Your task to perform on an android device: open app "Microsoft Outlook" (install if not already installed) and enter user name: "brand@gmail.com" and password: "persuasiveness" Image 0: 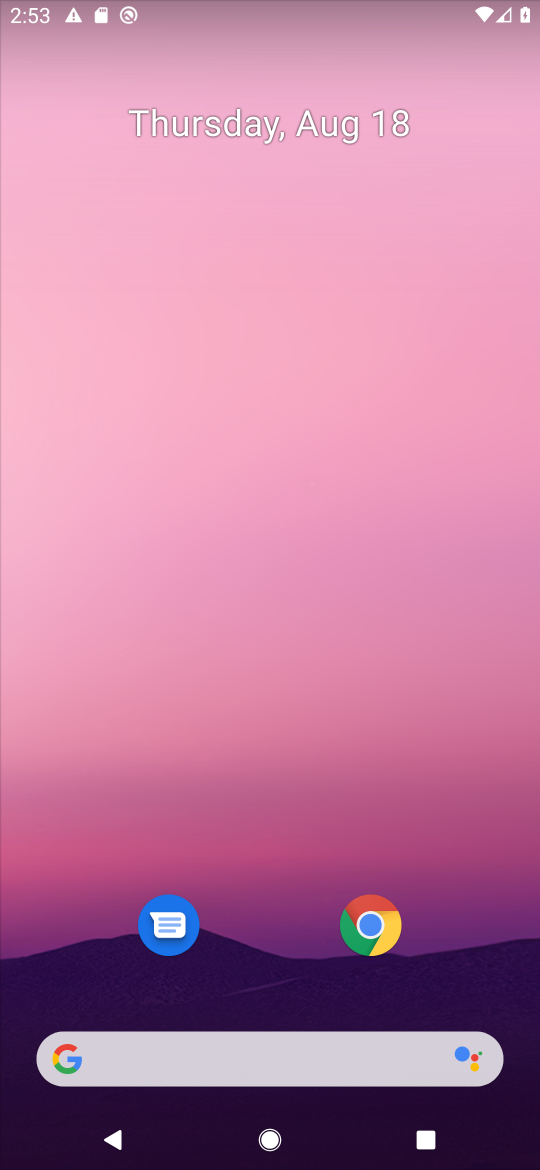
Step 0: drag from (267, 855) to (300, 304)
Your task to perform on an android device: open app "Microsoft Outlook" (install if not already installed) and enter user name: "brand@gmail.com" and password: "persuasiveness" Image 1: 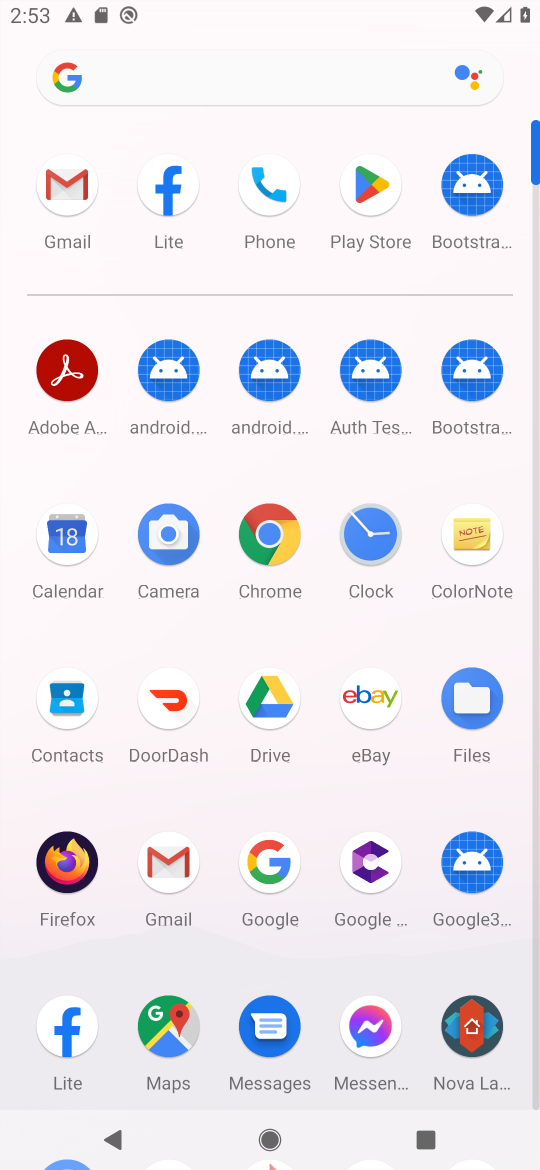
Step 1: click (376, 193)
Your task to perform on an android device: open app "Microsoft Outlook" (install if not already installed) and enter user name: "brand@gmail.com" and password: "persuasiveness" Image 2: 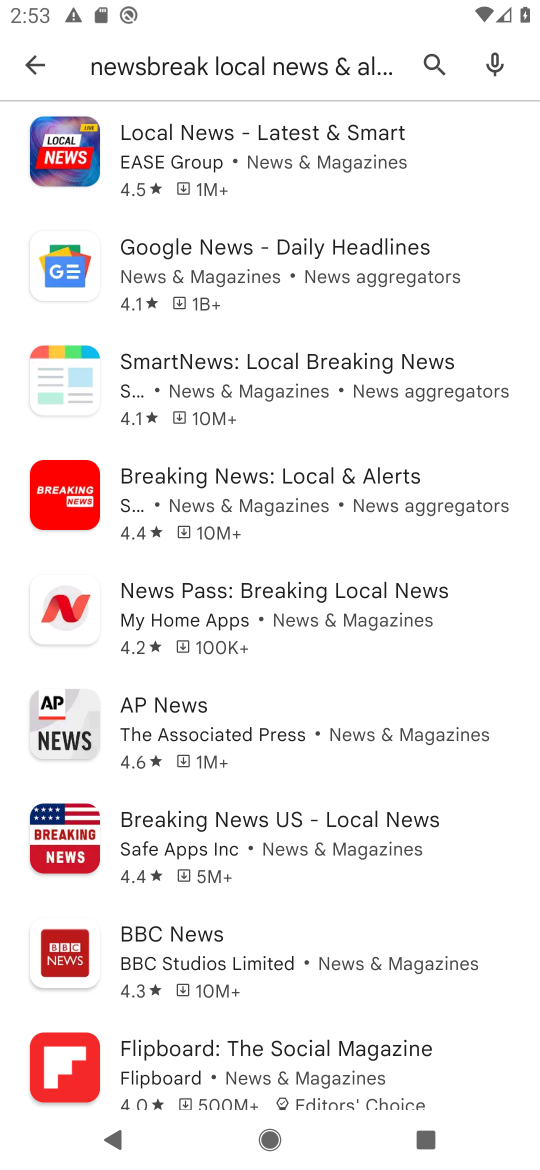
Step 2: click (30, 70)
Your task to perform on an android device: open app "Microsoft Outlook" (install if not already installed) and enter user name: "brand@gmail.com" and password: "persuasiveness" Image 3: 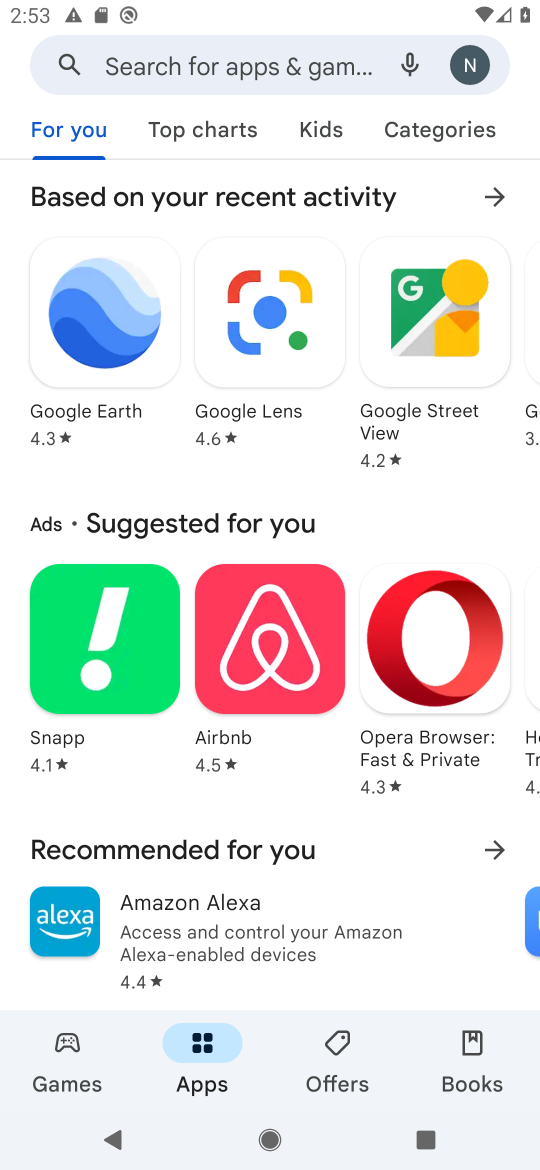
Step 3: click (188, 74)
Your task to perform on an android device: open app "Microsoft Outlook" (install if not already installed) and enter user name: "brand@gmail.com" and password: "persuasiveness" Image 4: 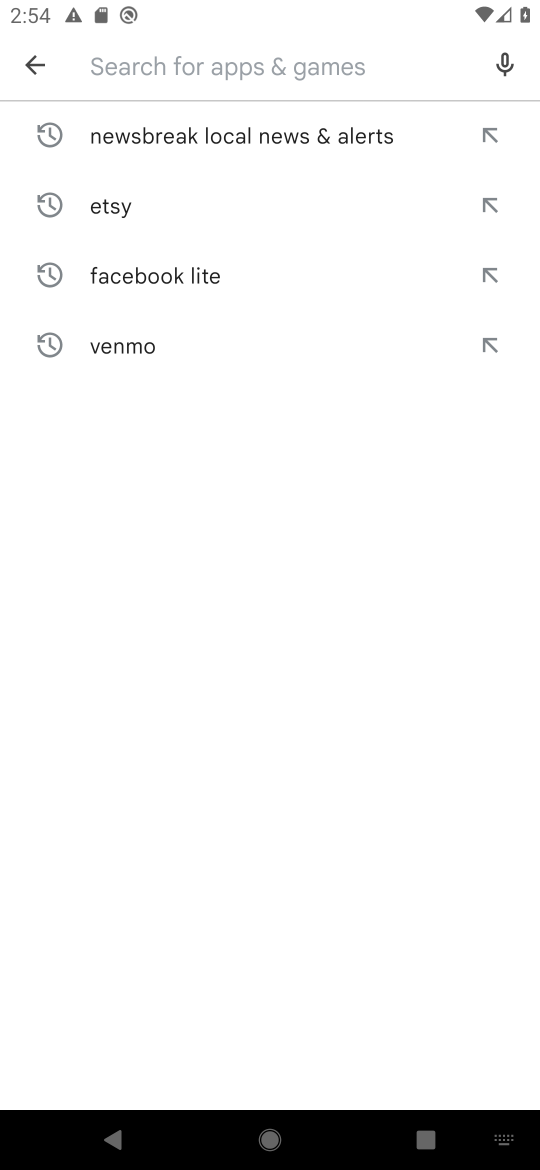
Step 4: type "Microsoft Outlook"
Your task to perform on an android device: open app "Microsoft Outlook" (install if not already installed) and enter user name: "brand@gmail.com" and password: "persuasiveness" Image 5: 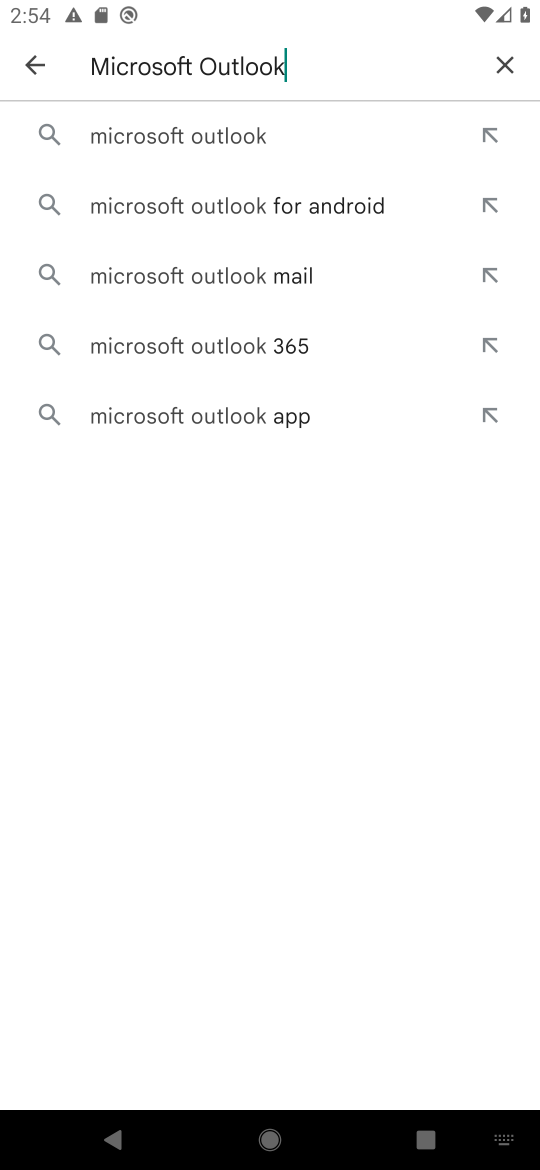
Step 5: click (207, 136)
Your task to perform on an android device: open app "Microsoft Outlook" (install if not already installed) and enter user name: "brand@gmail.com" and password: "persuasiveness" Image 6: 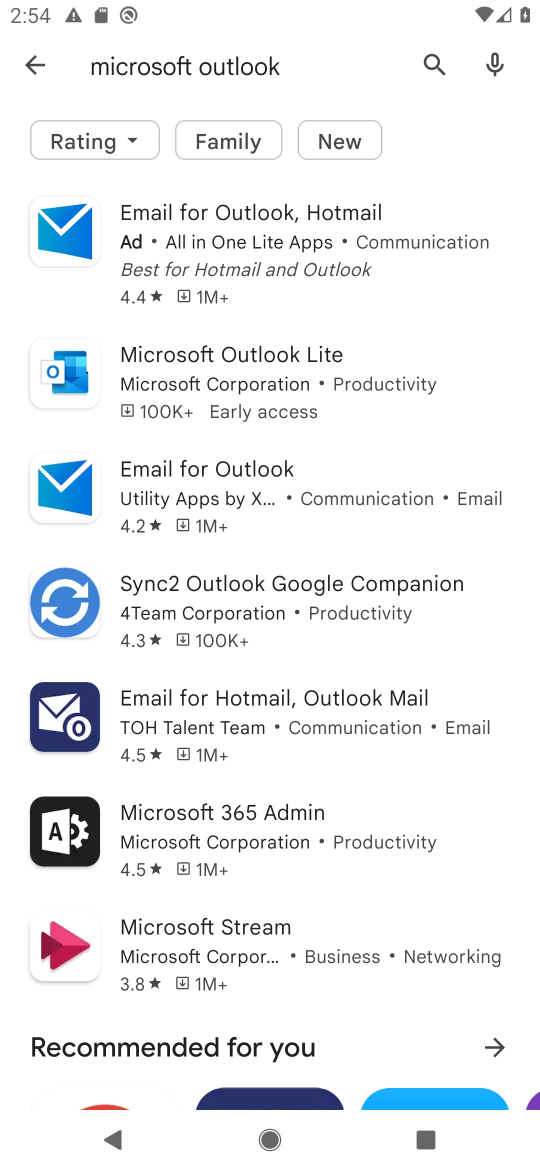
Step 6: click (187, 392)
Your task to perform on an android device: open app "Microsoft Outlook" (install if not already installed) and enter user name: "brand@gmail.com" and password: "persuasiveness" Image 7: 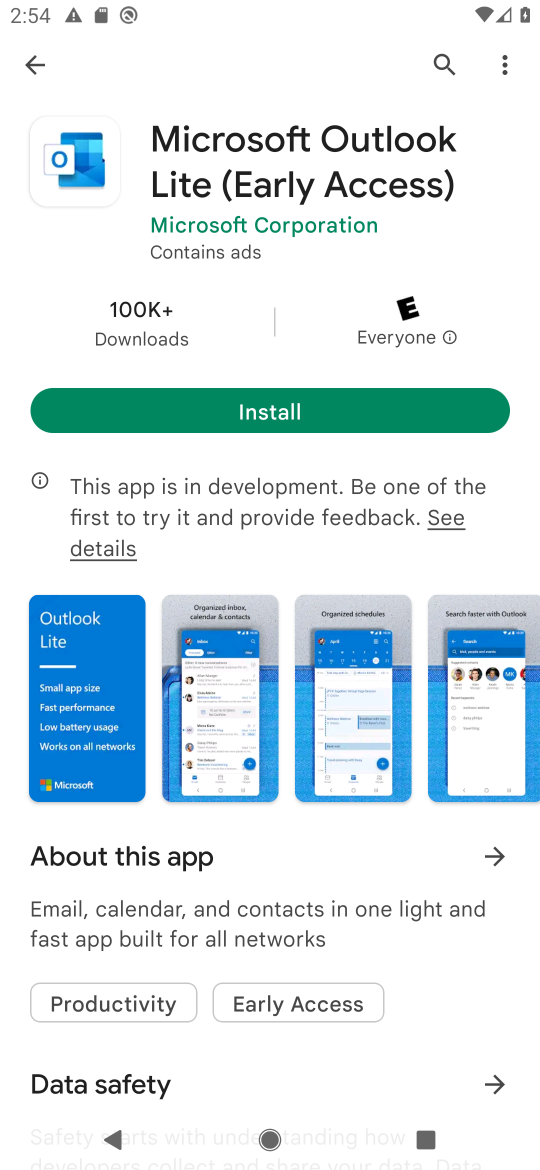
Step 7: click (256, 410)
Your task to perform on an android device: open app "Microsoft Outlook" (install if not already installed) and enter user name: "brand@gmail.com" and password: "persuasiveness" Image 8: 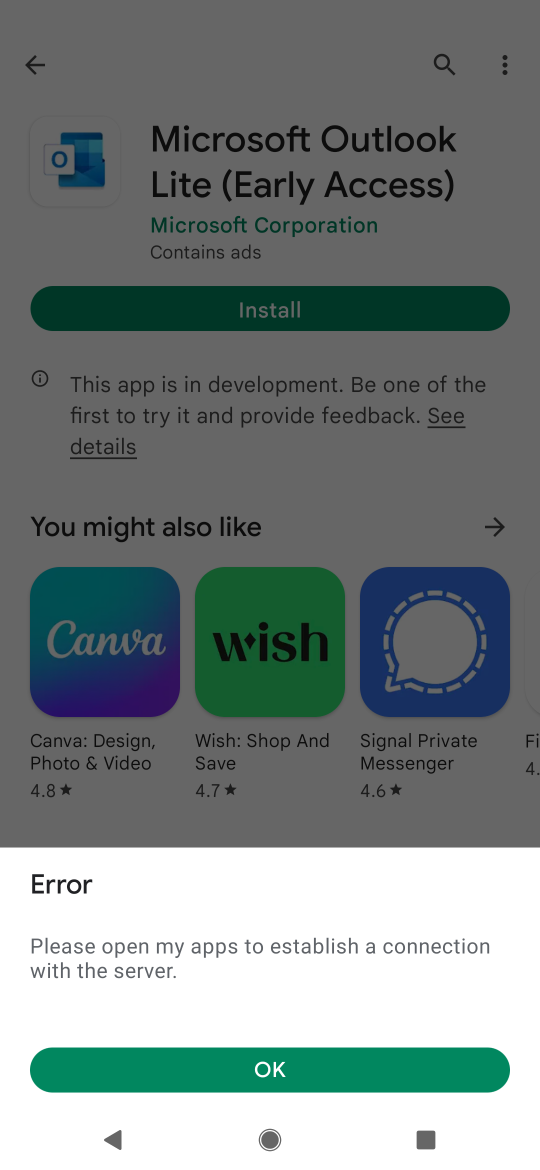
Step 8: click (267, 1078)
Your task to perform on an android device: open app "Microsoft Outlook" (install if not already installed) and enter user name: "brand@gmail.com" and password: "persuasiveness" Image 9: 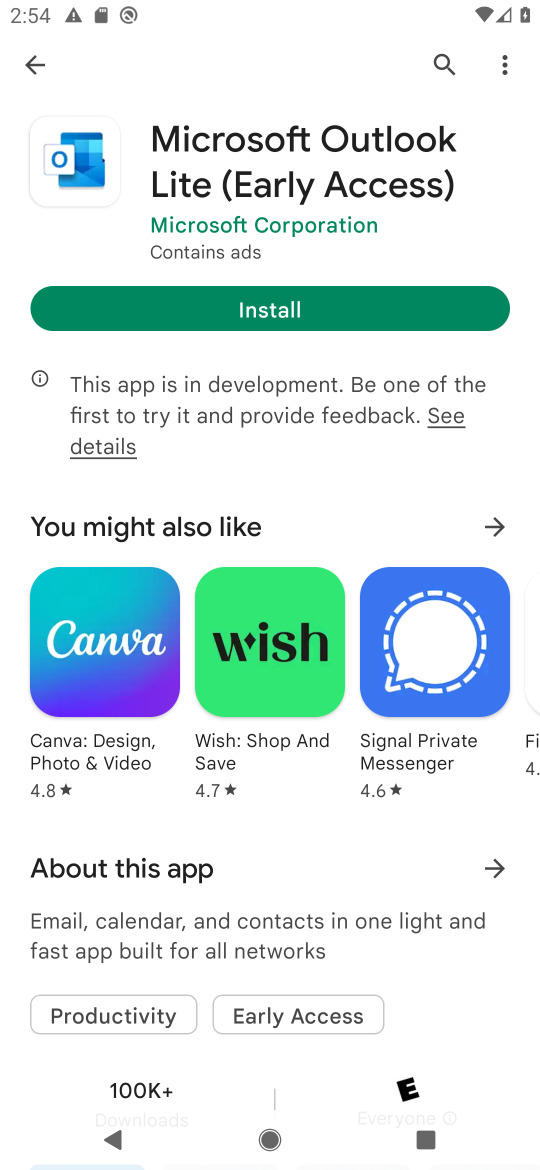
Step 9: click (252, 310)
Your task to perform on an android device: open app "Microsoft Outlook" (install if not already installed) and enter user name: "brand@gmail.com" and password: "persuasiveness" Image 10: 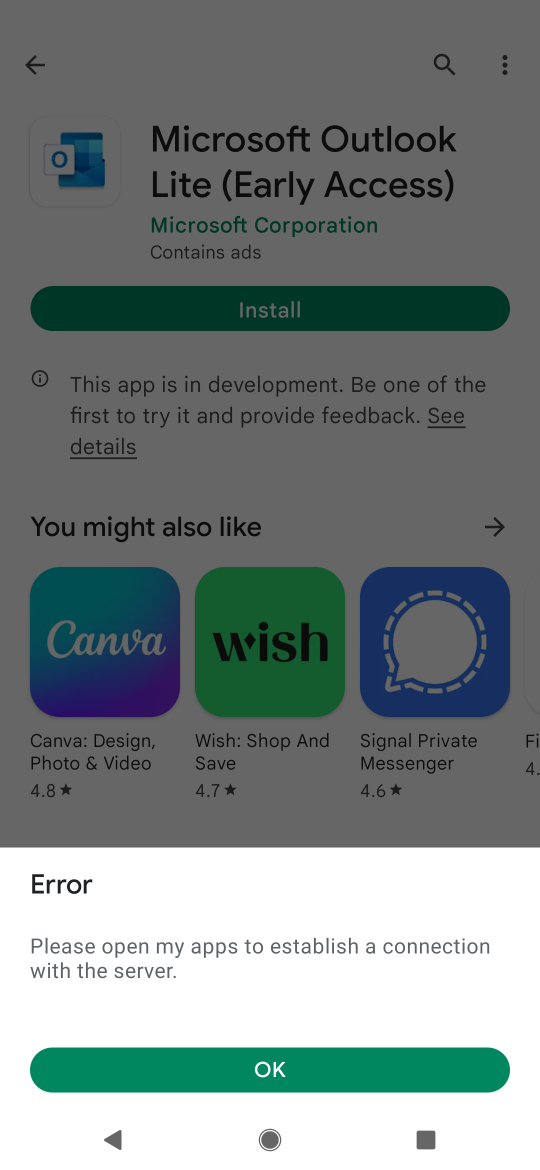
Step 10: click (282, 1060)
Your task to perform on an android device: open app "Microsoft Outlook" (install if not already installed) and enter user name: "brand@gmail.com" and password: "persuasiveness" Image 11: 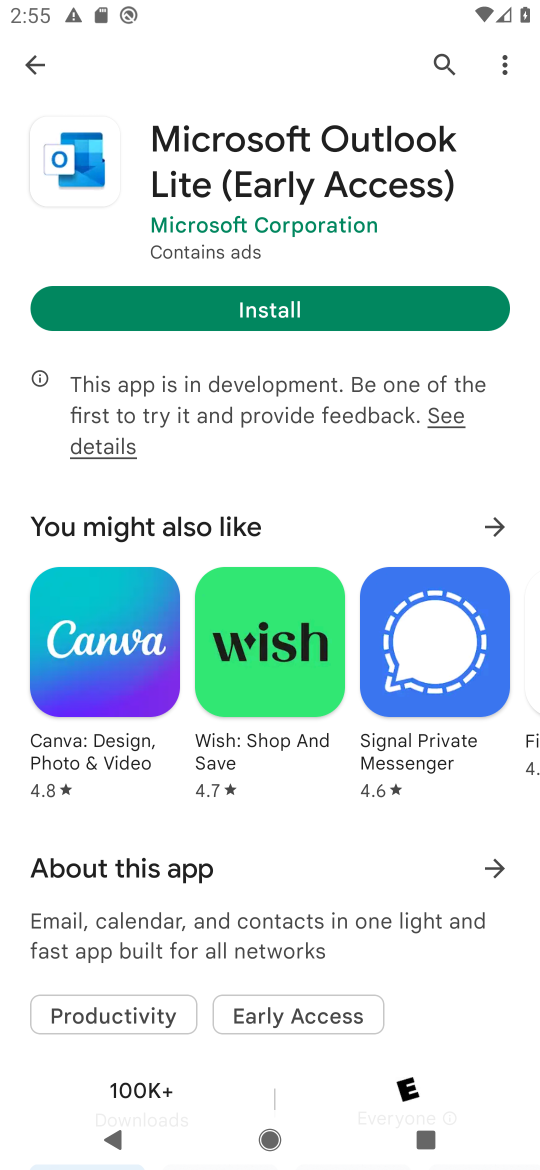
Step 11: task complete